Your task to perform on an android device: change text size in settings app Image 0: 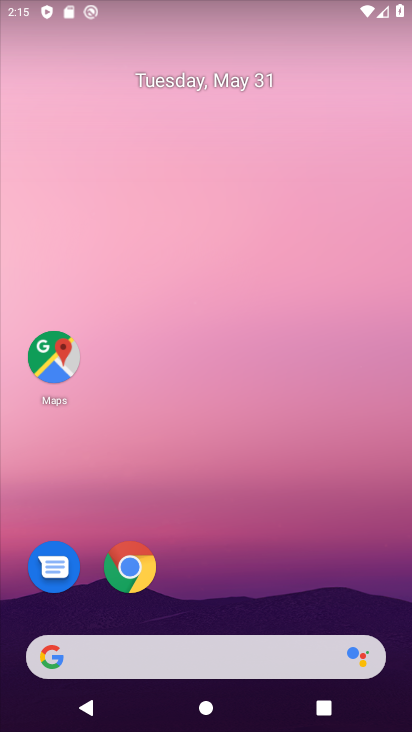
Step 0: drag from (236, 610) to (201, 170)
Your task to perform on an android device: change text size in settings app Image 1: 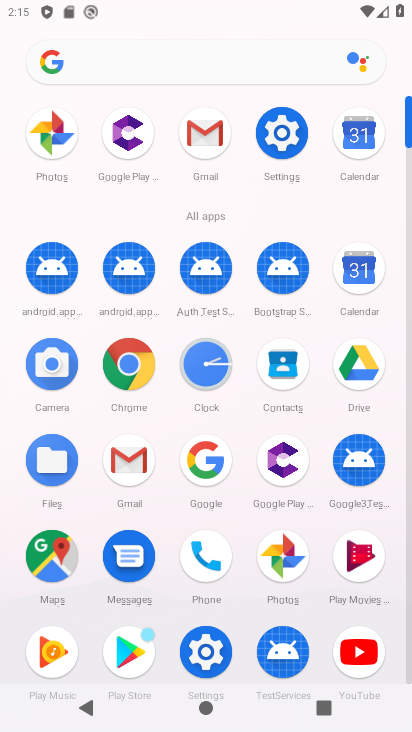
Step 1: click (278, 131)
Your task to perform on an android device: change text size in settings app Image 2: 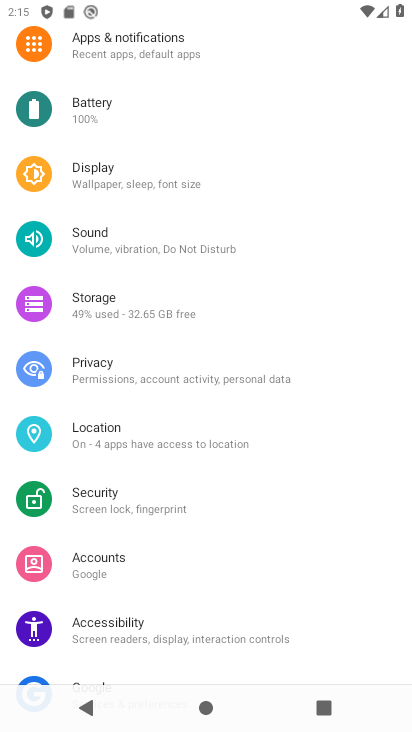
Step 2: click (151, 186)
Your task to perform on an android device: change text size in settings app Image 3: 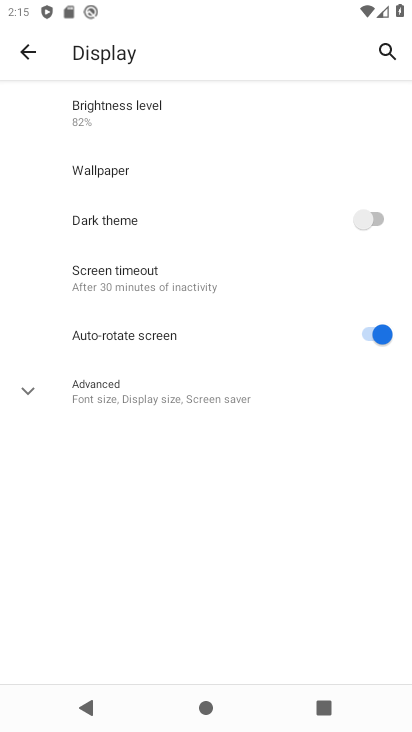
Step 3: click (166, 411)
Your task to perform on an android device: change text size in settings app Image 4: 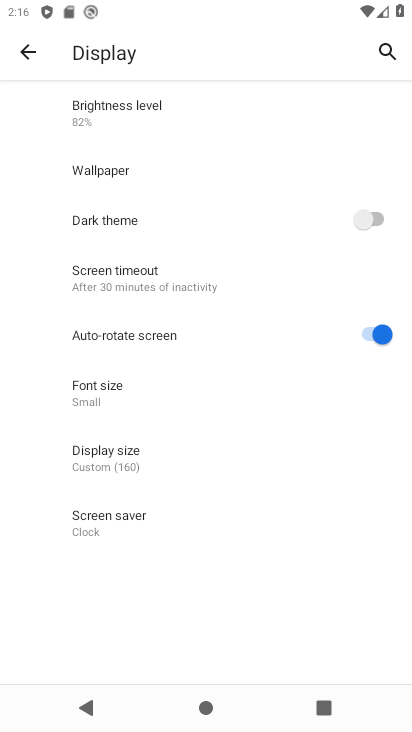
Step 4: click (157, 401)
Your task to perform on an android device: change text size in settings app Image 5: 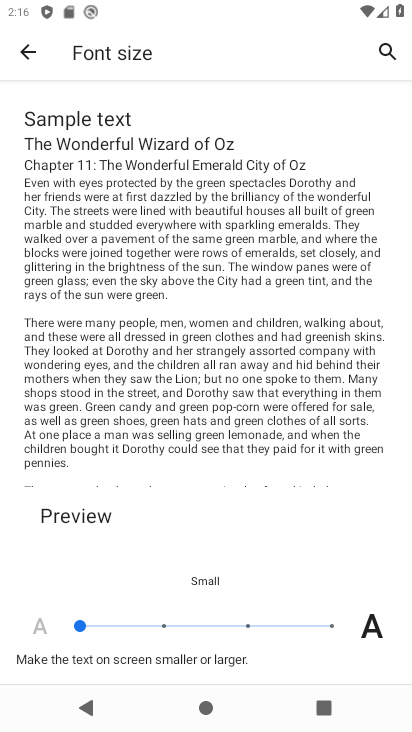
Step 5: click (167, 623)
Your task to perform on an android device: change text size in settings app Image 6: 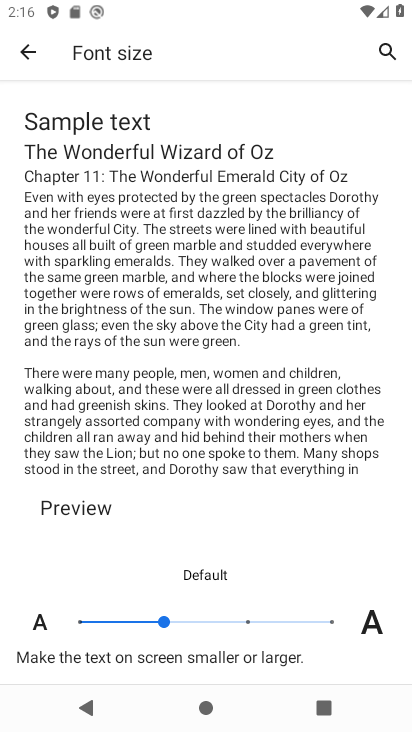
Step 6: task complete